Your task to perform on an android device: Do I have any events today? Image 0: 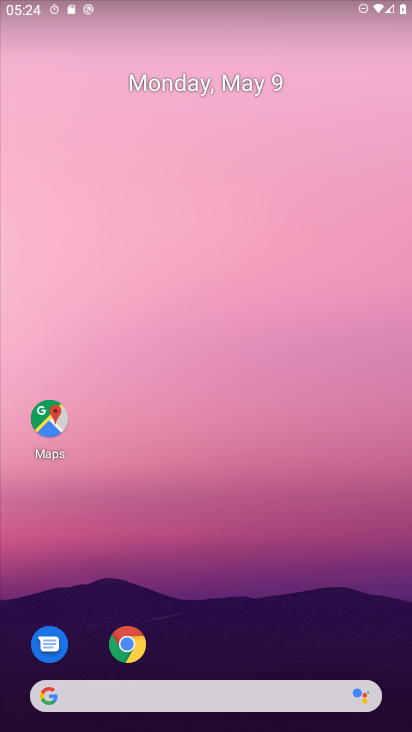
Step 0: drag from (229, 603) to (179, 63)
Your task to perform on an android device: Do I have any events today? Image 1: 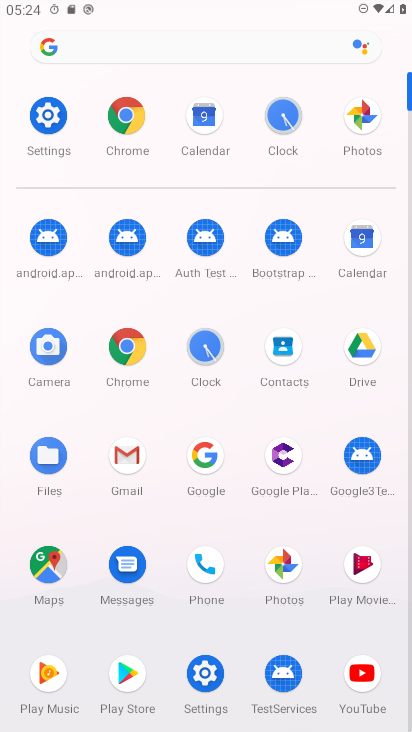
Step 1: click (361, 238)
Your task to perform on an android device: Do I have any events today? Image 2: 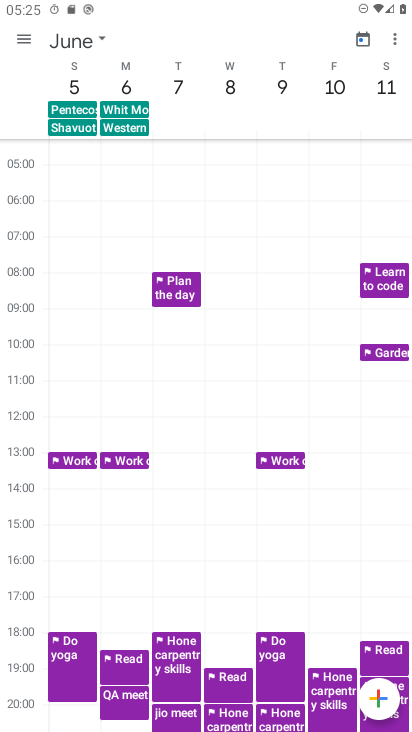
Step 2: click (365, 34)
Your task to perform on an android device: Do I have any events today? Image 3: 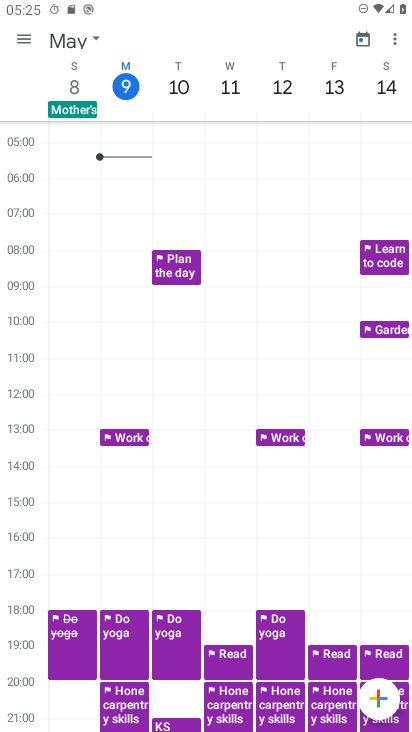
Step 3: click (94, 39)
Your task to perform on an android device: Do I have any events today? Image 4: 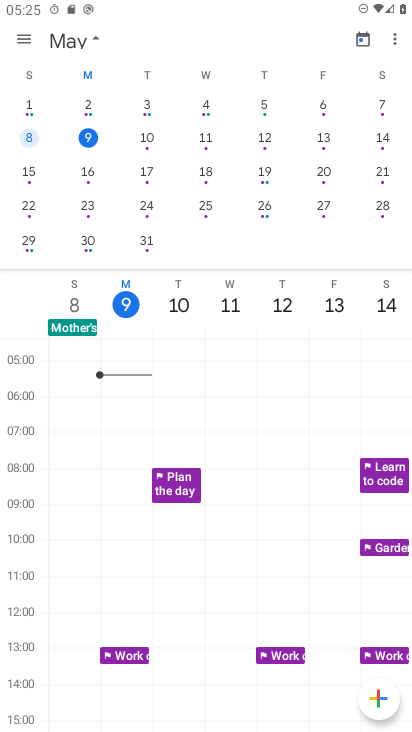
Step 4: click (96, 135)
Your task to perform on an android device: Do I have any events today? Image 5: 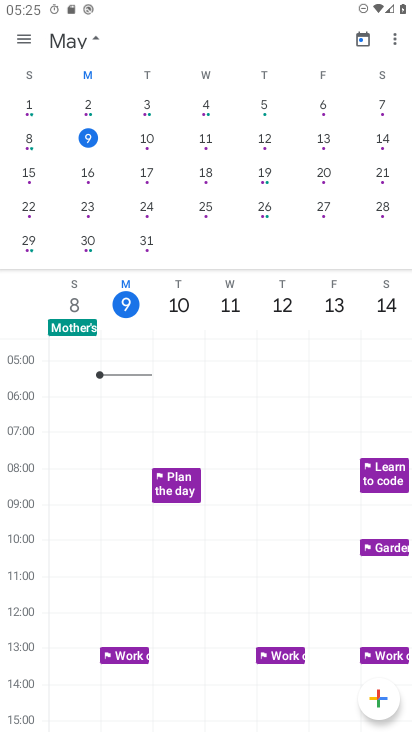
Step 5: click (29, 40)
Your task to perform on an android device: Do I have any events today? Image 6: 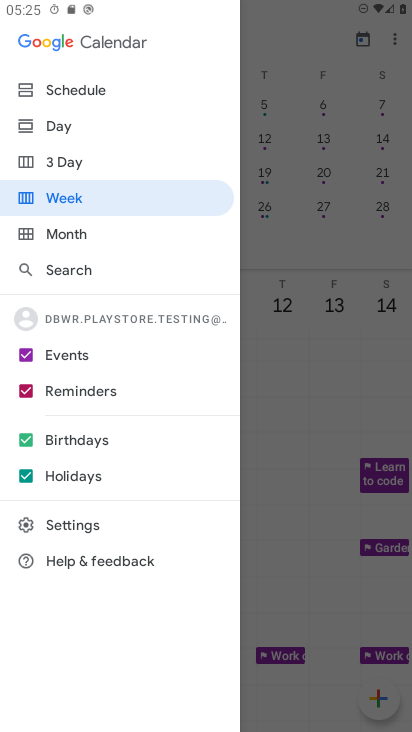
Step 6: click (66, 92)
Your task to perform on an android device: Do I have any events today? Image 7: 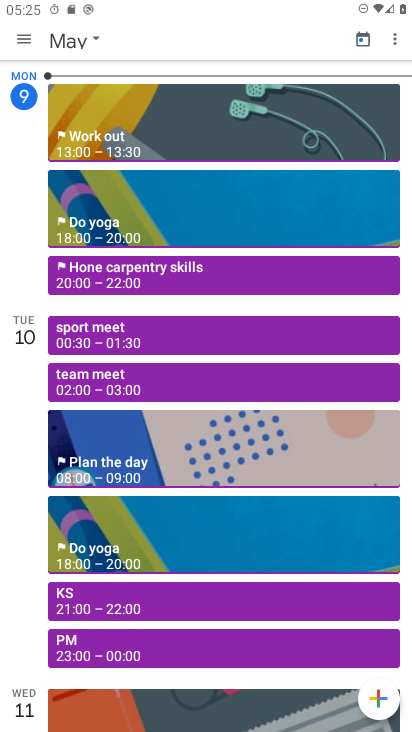
Step 7: task complete